Your task to perform on an android device: Search for Italian restaurants on Maps Image 0: 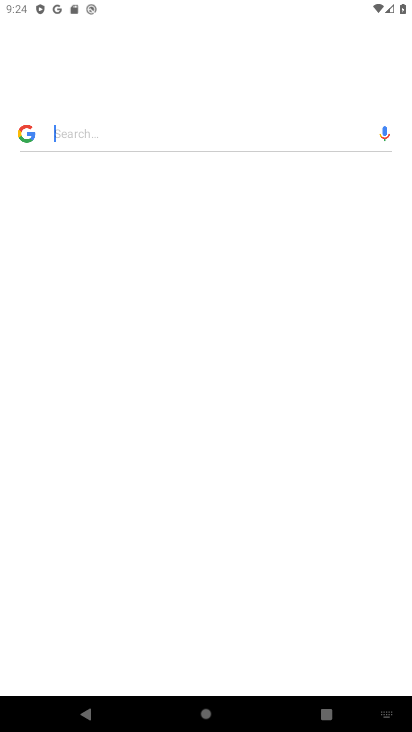
Step 0: press home button
Your task to perform on an android device: Search for Italian restaurants on Maps Image 1: 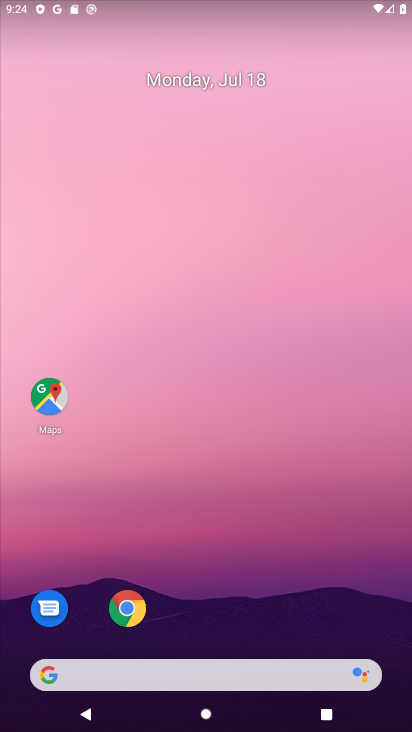
Step 1: click (50, 403)
Your task to perform on an android device: Search for Italian restaurants on Maps Image 2: 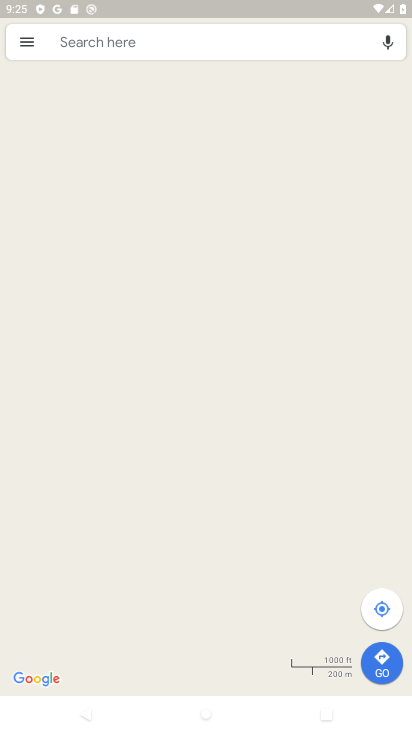
Step 2: click (256, 43)
Your task to perform on an android device: Search for Italian restaurants on Maps Image 3: 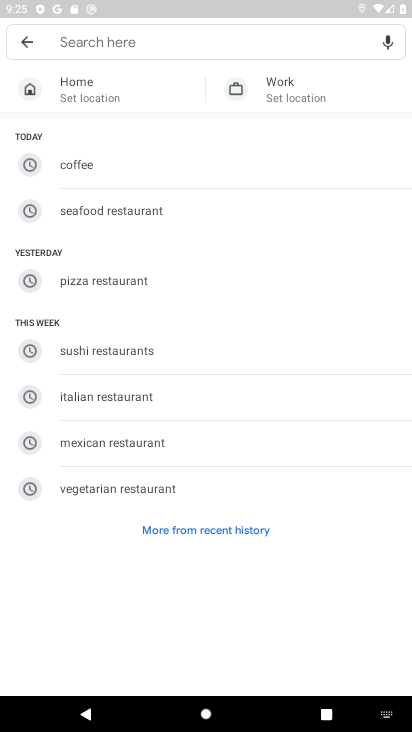
Step 3: type "italian restaurants"
Your task to perform on an android device: Search for Italian restaurants on Maps Image 4: 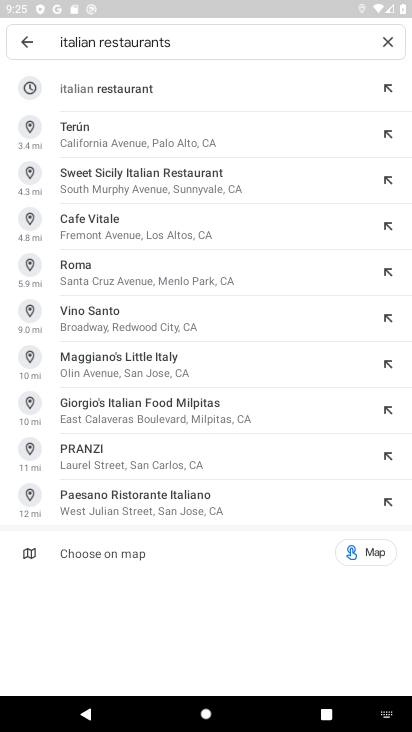
Step 4: click (93, 94)
Your task to perform on an android device: Search for Italian restaurants on Maps Image 5: 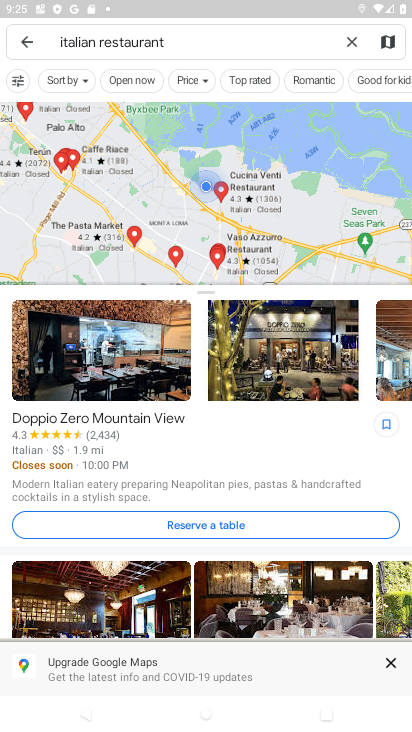
Step 5: task complete